Your task to perform on an android device: Turn on the flashlight Image 0: 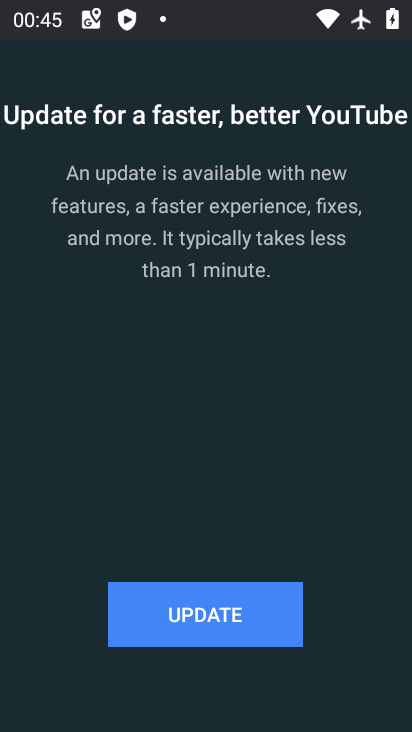
Step 0: press home button
Your task to perform on an android device: Turn on the flashlight Image 1: 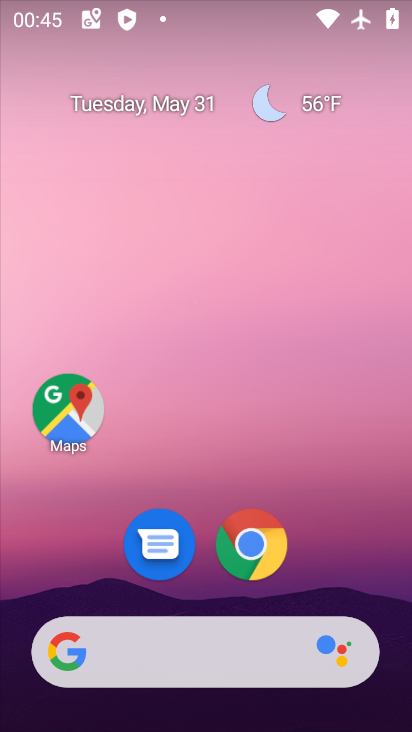
Step 1: drag from (327, 522) to (215, 144)
Your task to perform on an android device: Turn on the flashlight Image 2: 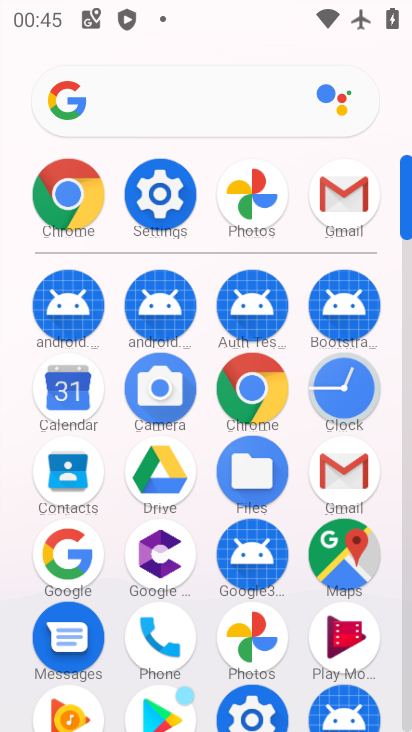
Step 2: click (152, 189)
Your task to perform on an android device: Turn on the flashlight Image 3: 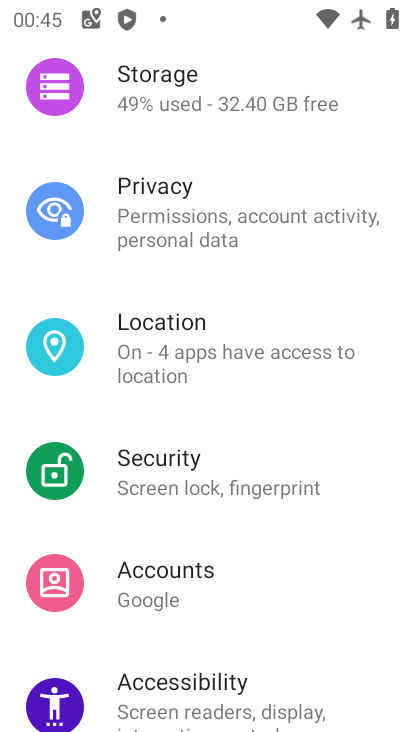
Step 3: drag from (184, 149) to (181, 399)
Your task to perform on an android device: Turn on the flashlight Image 4: 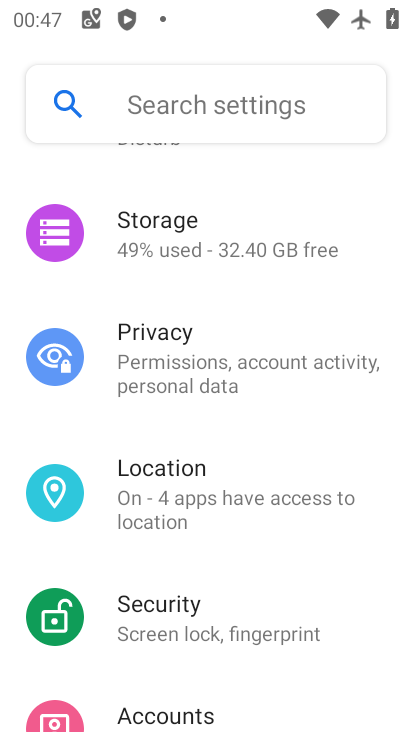
Step 4: click (171, 355)
Your task to perform on an android device: Turn on the flashlight Image 5: 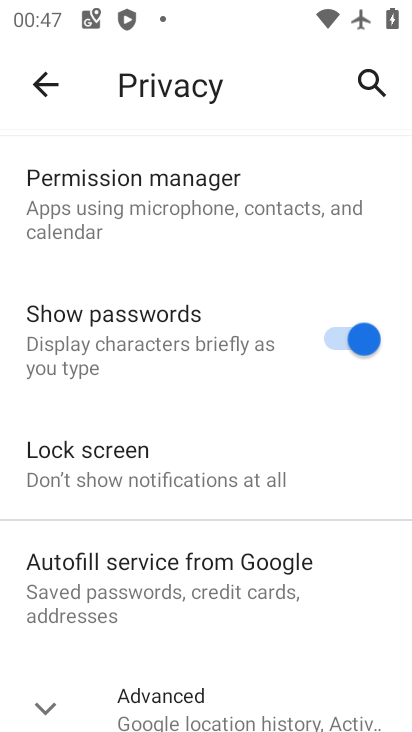
Step 5: click (35, 83)
Your task to perform on an android device: Turn on the flashlight Image 6: 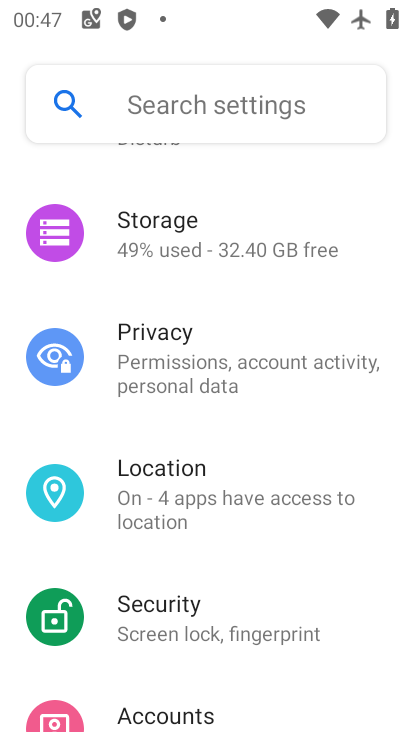
Step 6: task complete